Your task to perform on an android device: Do I have any events tomorrow? Image 0: 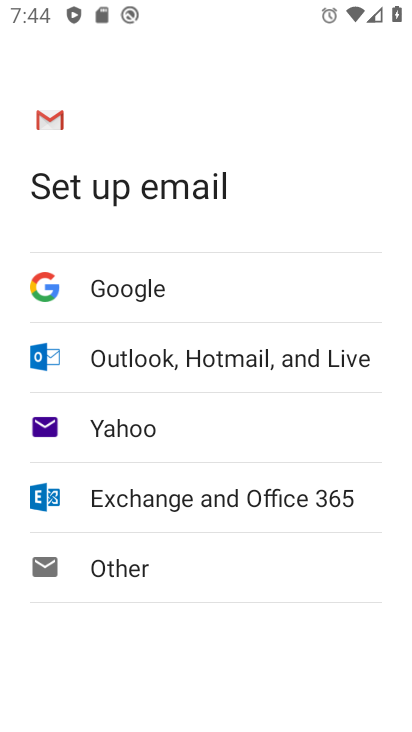
Step 0: press home button
Your task to perform on an android device: Do I have any events tomorrow? Image 1: 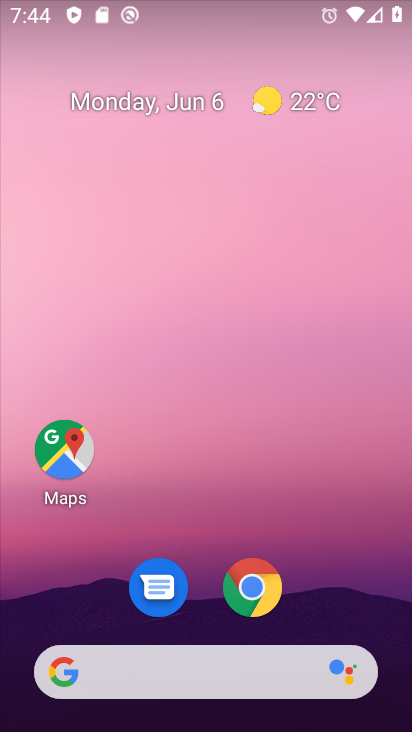
Step 1: drag from (342, 609) to (354, 72)
Your task to perform on an android device: Do I have any events tomorrow? Image 2: 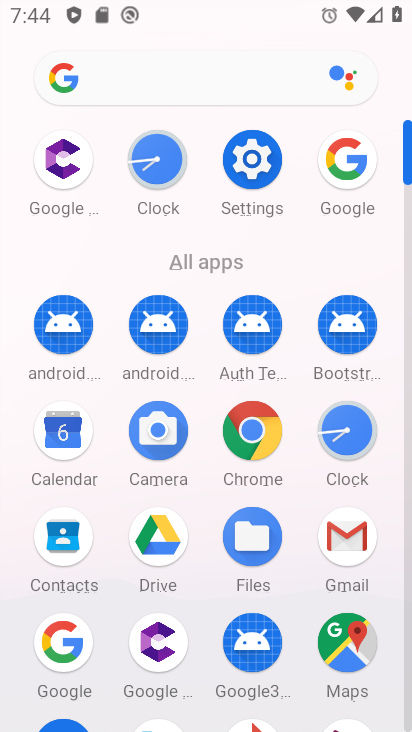
Step 2: click (69, 432)
Your task to perform on an android device: Do I have any events tomorrow? Image 3: 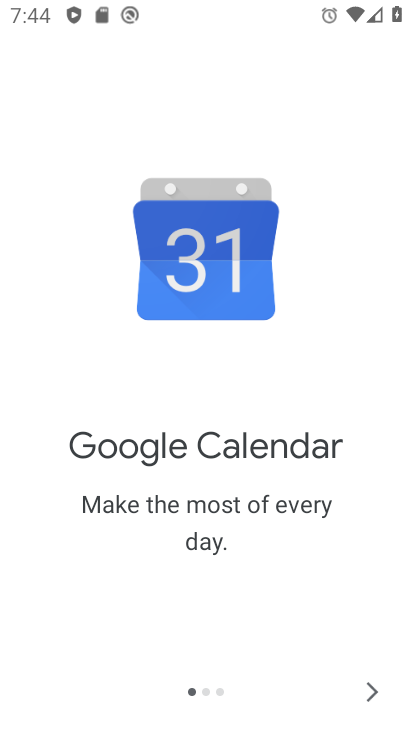
Step 3: click (378, 691)
Your task to perform on an android device: Do I have any events tomorrow? Image 4: 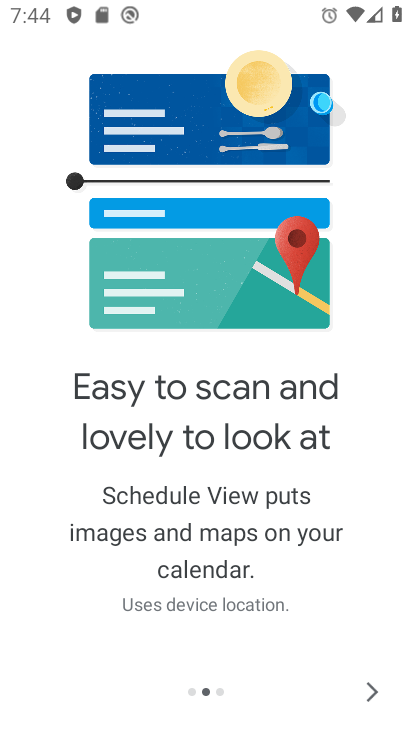
Step 4: click (378, 688)
Your task to perform on an android device: Do I have any events tomorrow? Image 5: 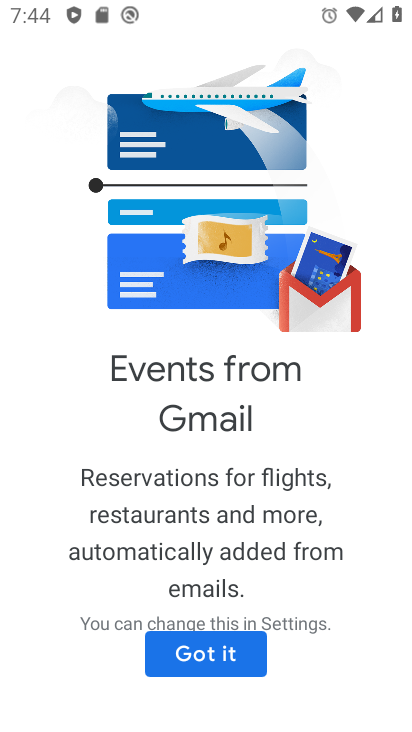
Step 5: click (210, 654)
Your task to perform on an android device: Do I have any events tomorrow? Image 6: 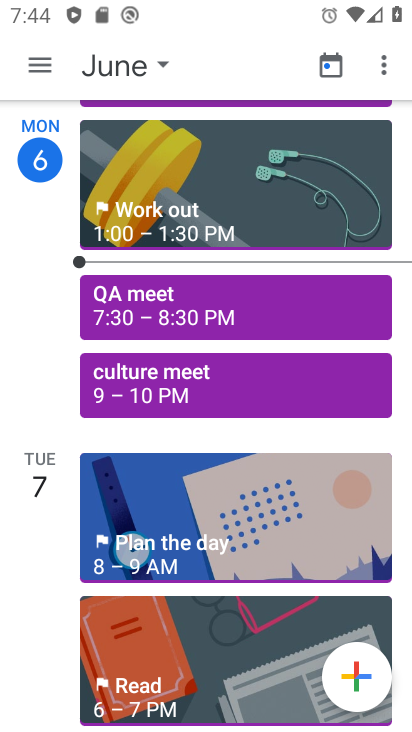
Step 6: click (134, 63)
Your task to perform on an android device: Do I have any events tomorrow? Image 7: 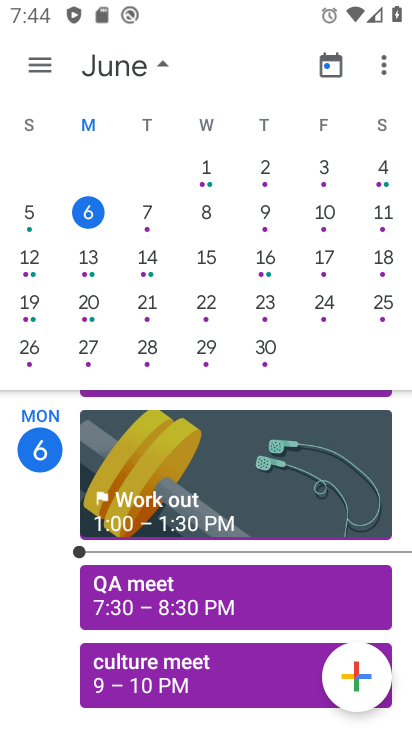
Step 7: click (148, 216)
Your task to perform on an android device: Do I have any events tomorrow? Image 8: 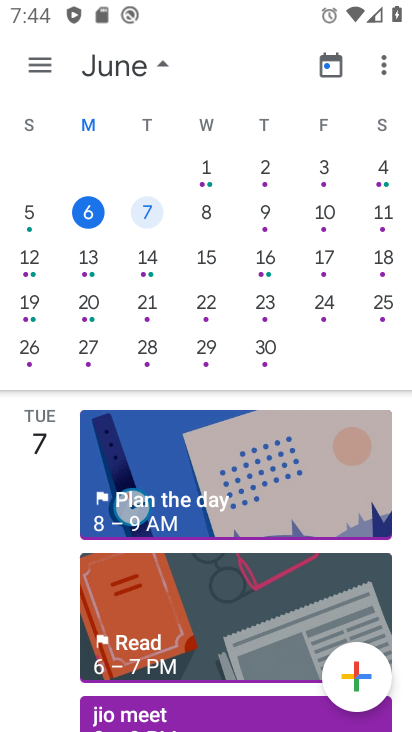
Step 8: task complete